Your task to perform on an android device: change timer sound Image 0: 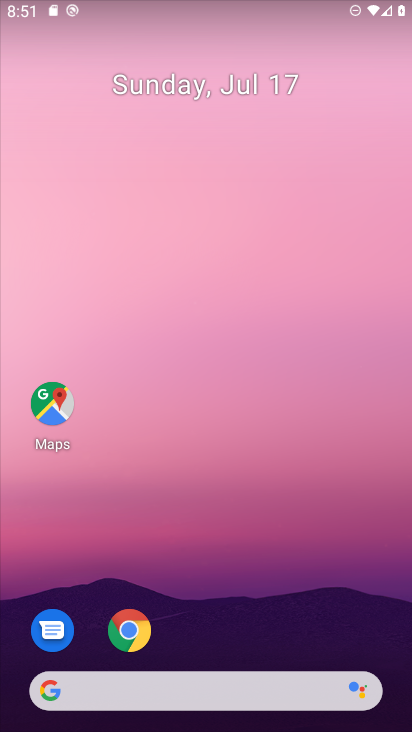
Step 0: drag from (259, 587) to (300, 207)
Your task to perform on an android device: change timer sound Image 1: 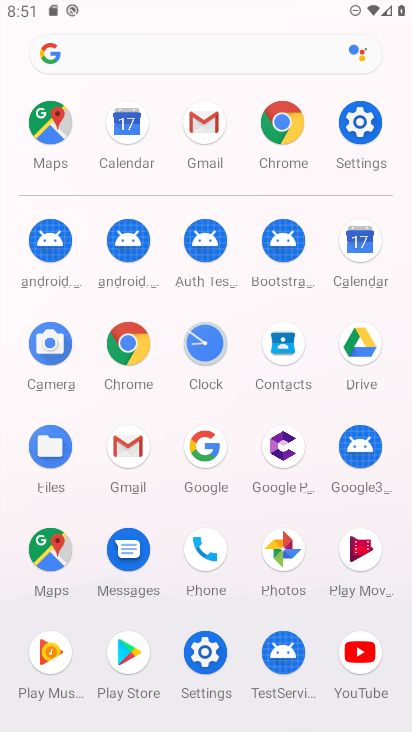
Step 1: click (223, 337)
Your task to perform on an android device: change timer sound Image 2: 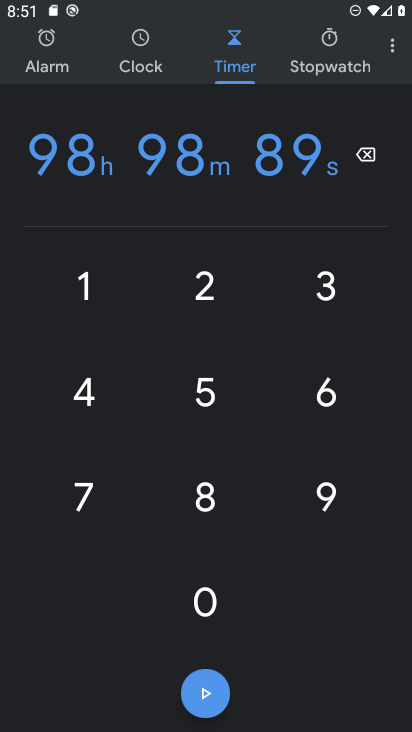
Step 2: click (401, 42)
Your task to perform on an android device: change timer sound Image 3: 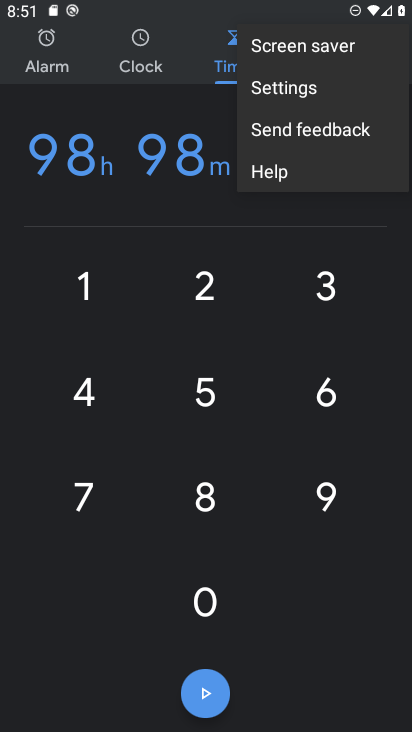
Step 3: click (287, 87)
Your task to perform on an android device: change timer sound Image 4: 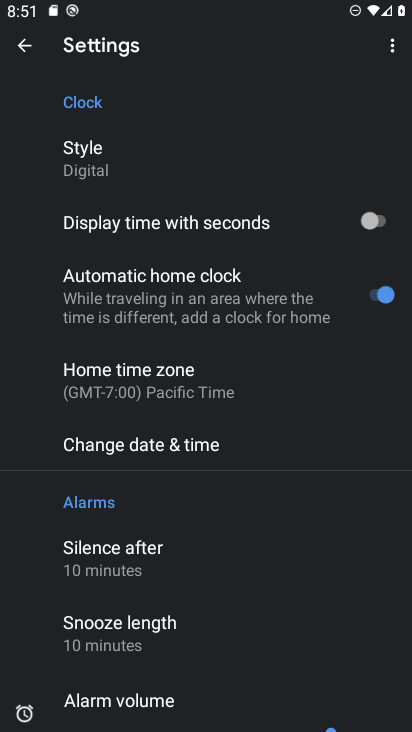
Step 4: drag from (223, 568) to (216, 340)
Your task to perform on an android device: change timer sound Image 5: 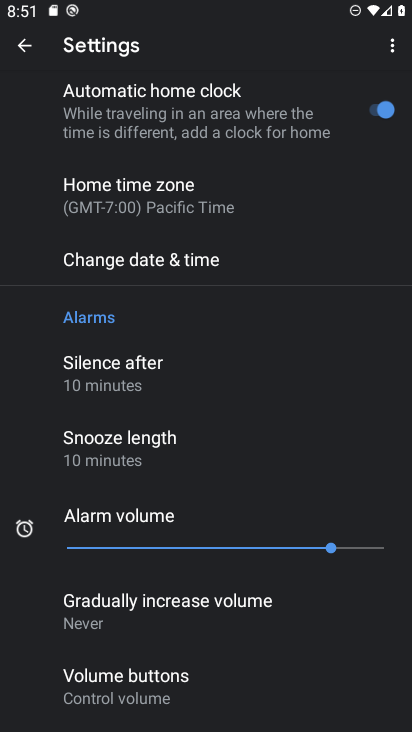
Step 5: drag from (242, 680) to (249, 200)
Your task to perform on an android device: change timer sound Image 6: 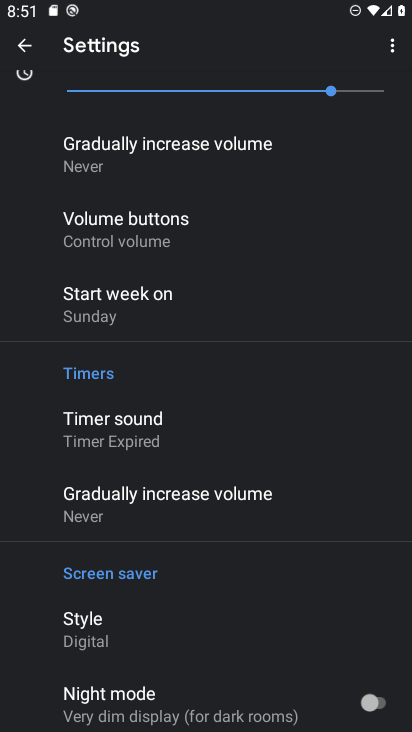
Step 6: click (146, 429)
Your task to perform on an android device: change timer sound Image 7: 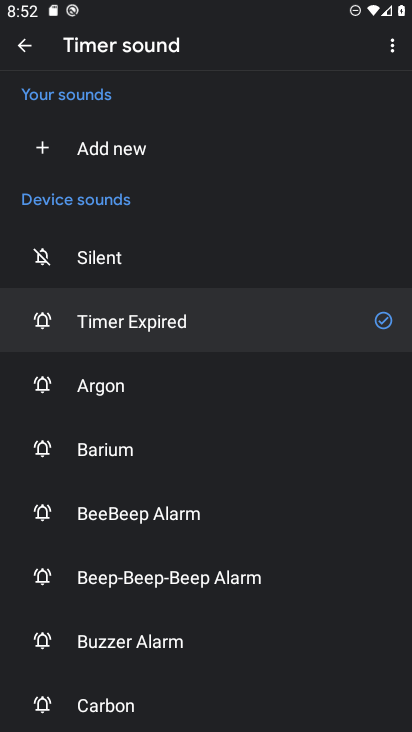
Step 7: click (135, 386)
Your task to perform on an android device: change timer sound Image 8: 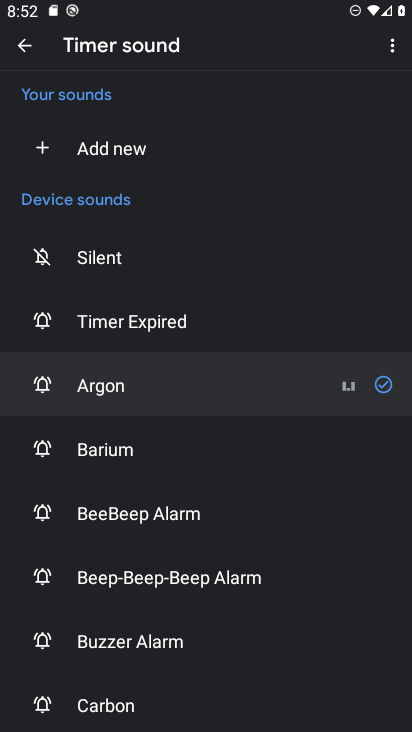
Step 8: task complete